Your task to perform on an android device: snooze an email in the gmail app Image 0: 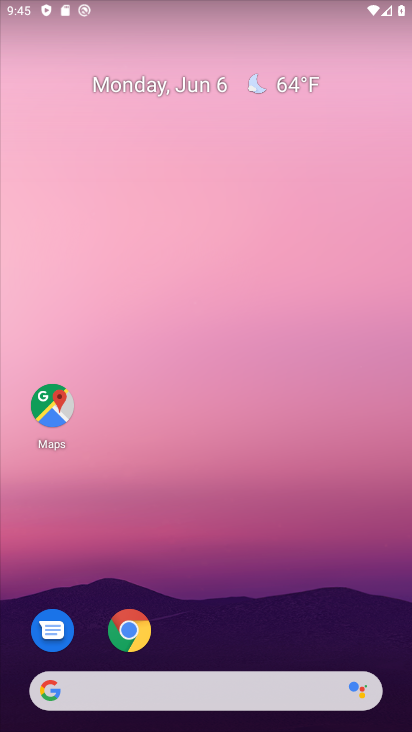
Step 0: drag from (148, 672) to (165, 84)
Your task to perform on an android device: snooze an email in the gmail app Image 1: 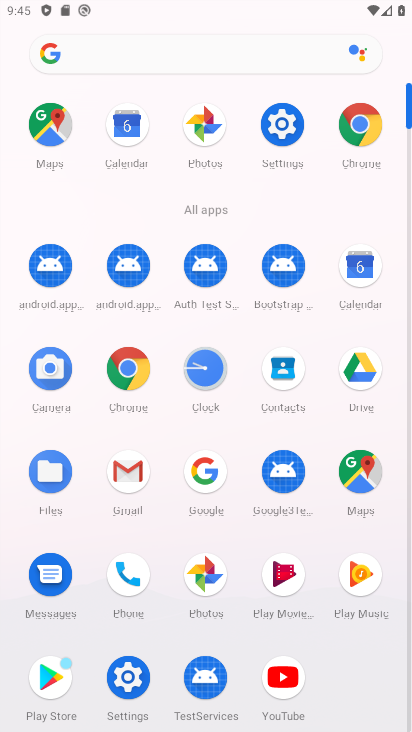
Step 1: click (124, 480)
Your task to perform on an android device: snooze an email in the gmail app Image 2: 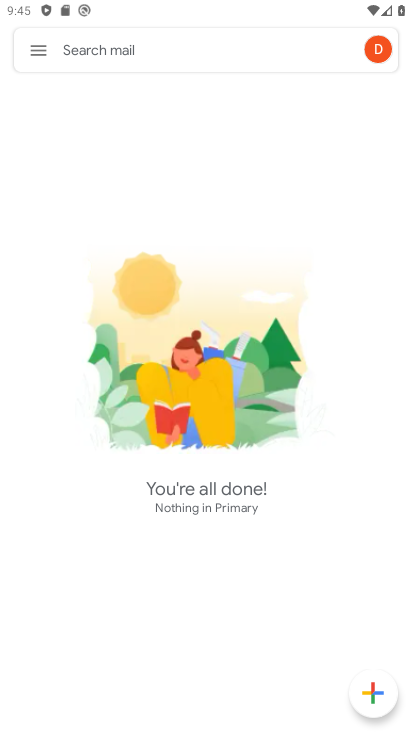
Step 2: click (41, 52)
Your task to perform on an android device: snooze an email in the gmail app Image 3: 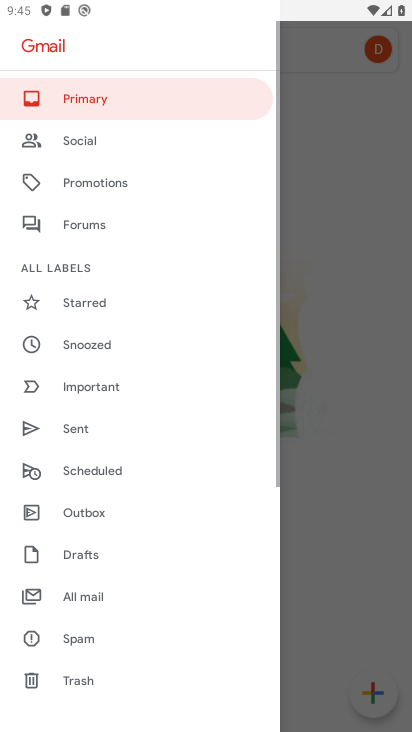
Step 3: click (95, 108)
Your task to perform on an android device: snooze an email in the gmail app Image 4: 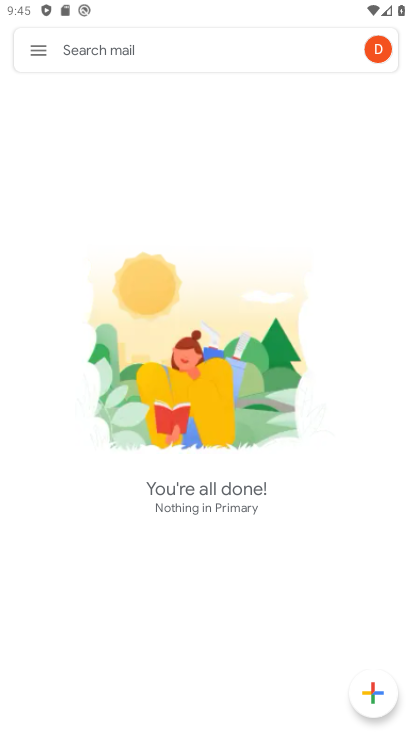
Step 4: click (30, 53)
Your task to perform on an android device: snooze an email in the gmail app Image 5: 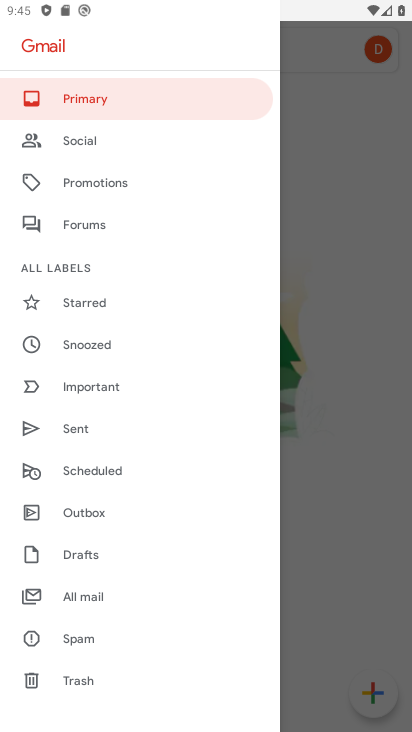
Step 5: click (70, 599)
Your task to perform on an android device: snooze an email in the gmail app Image 6: 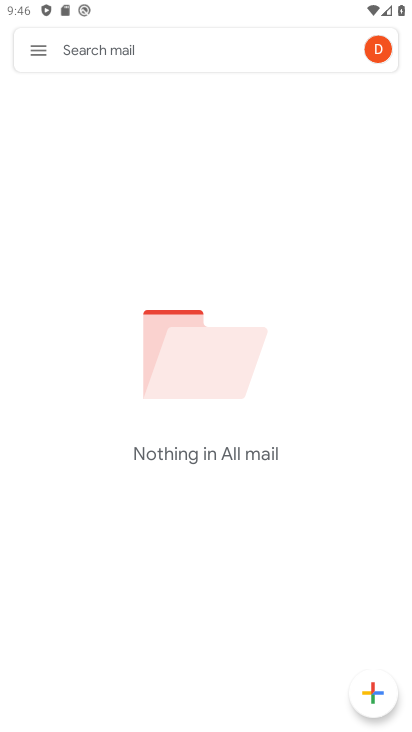
Step 6: task complete